Your task to perform on an android device: Open Google Maps Image 0: 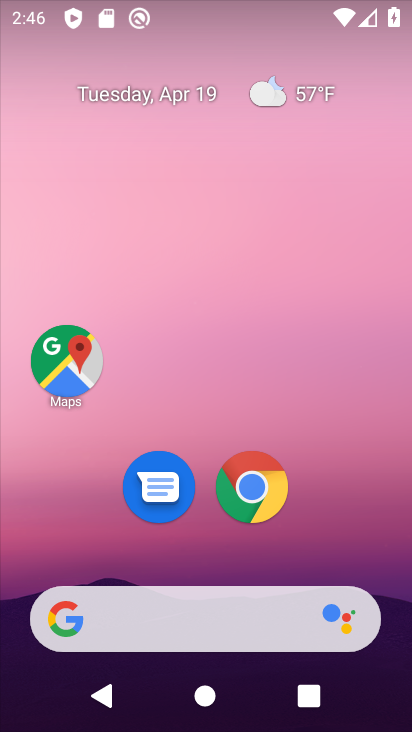
Step 0: drag from (375, 520) to (352, 176)
Your task to perform on an android device: Open Google Maps Image 1: 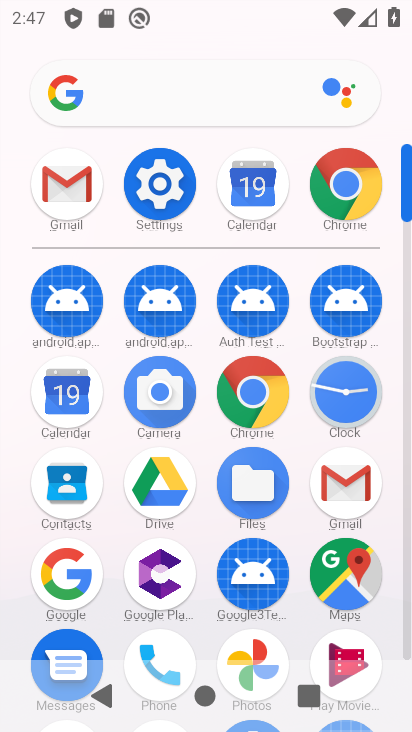
Step 1: click (350, 591)
Your task to perform on an android device: Open Google Maps Image 2: 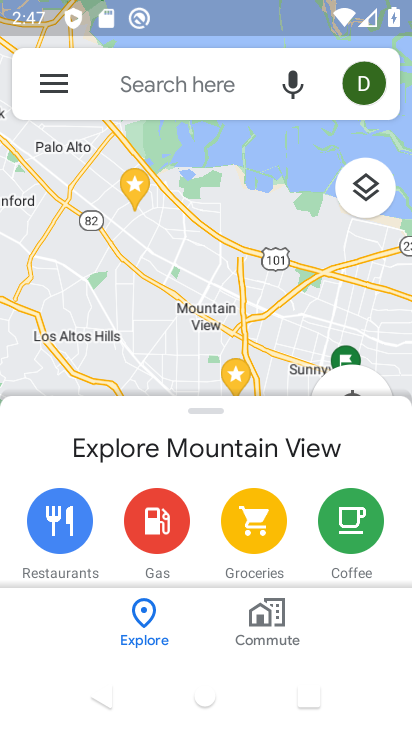
Step 2: task complete